Your task to perform on an android device: Go to Google Image 0: 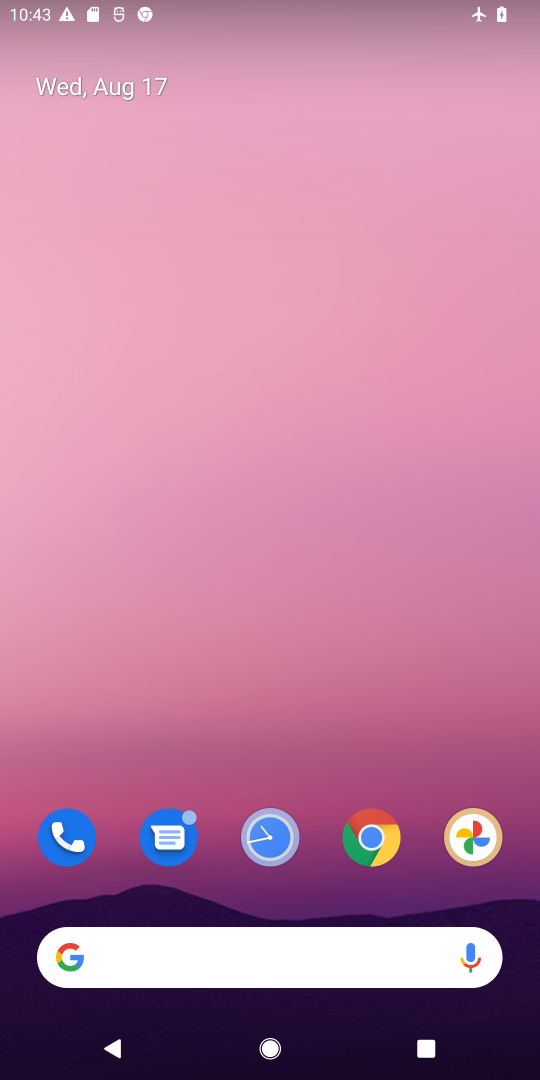
Step 0: drag from (288, 976) to (299, 229)
Your task to perform on an android device: Go to Google Image 1: 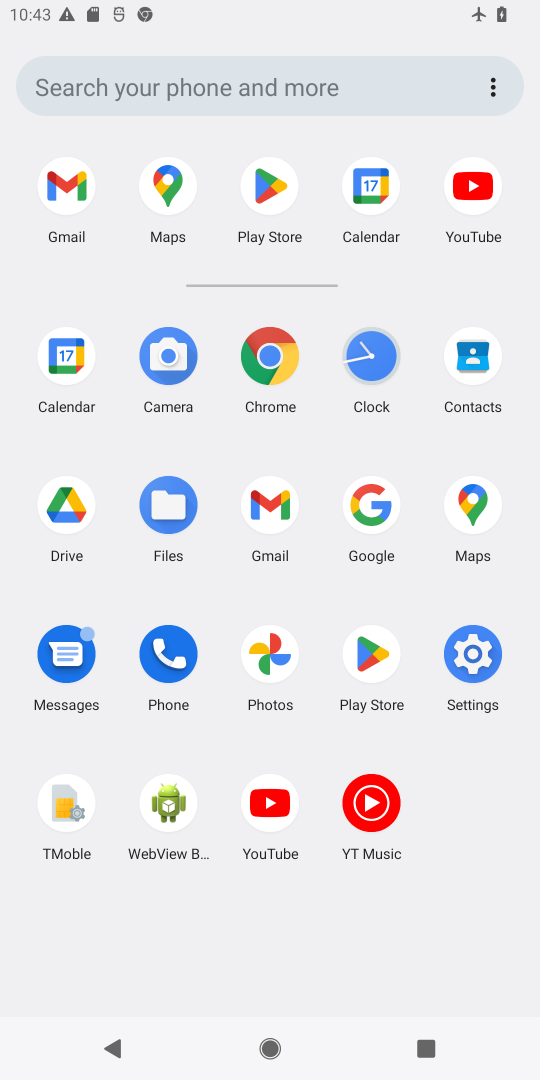
Step 1: click (368, 507)
Your task to perform on an android device: Go to Google Image 2: 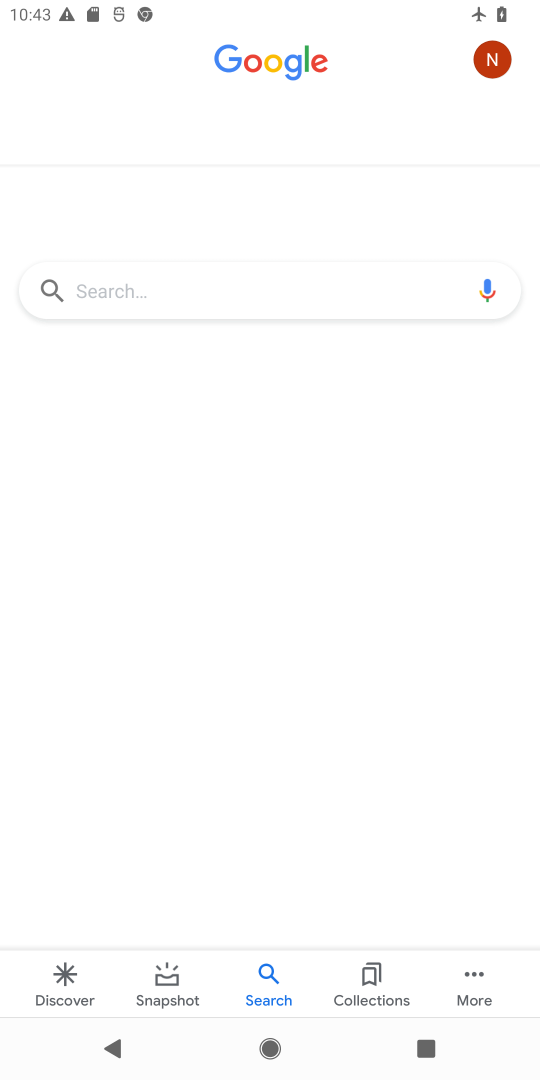
Step 2: task complete